Your task to perform on an android device: Open Yahoo.com Image 0: 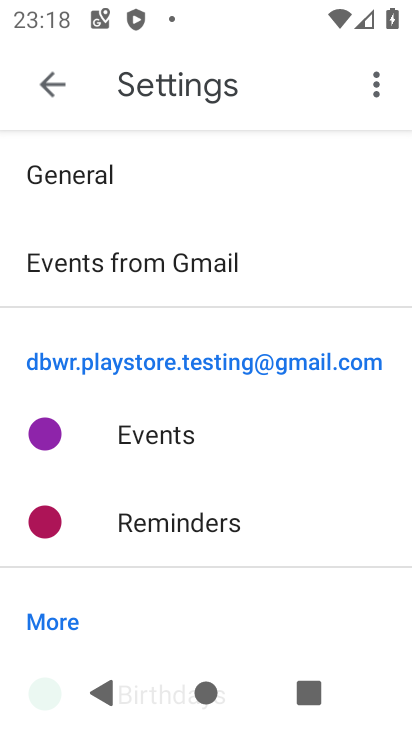
Step 0: press home button
Your task to perform on an android device: Open Yahoo.com Image 1: 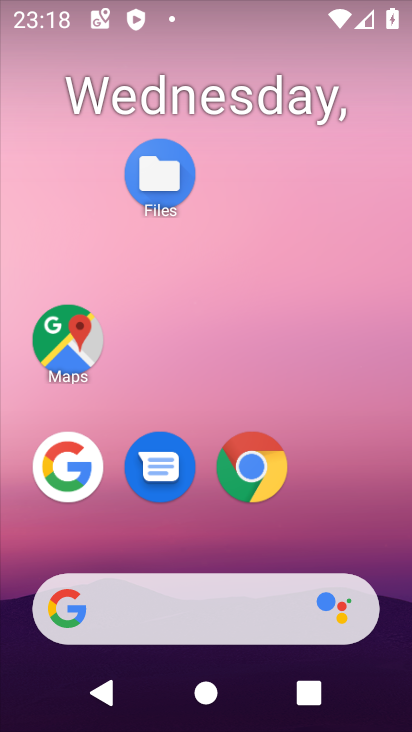
Step 1: click (258, 492)
Your task to perform on an android device: Open Yahoo.com Image 2: 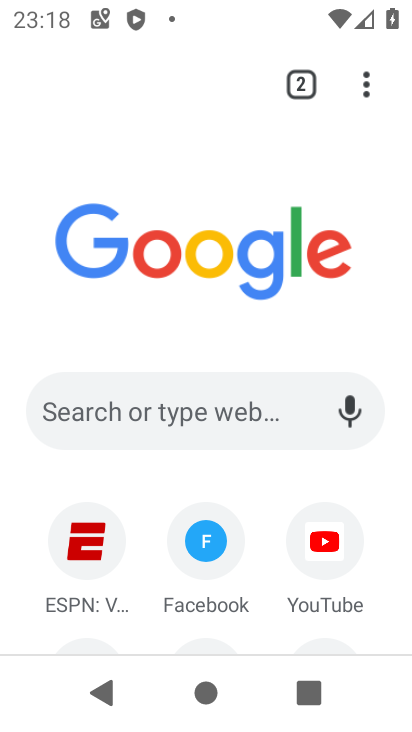
Step 2: drag from (140, 613) to (127, 462)
Your task to perform on an android device: Open Yahoo.com Image 3: 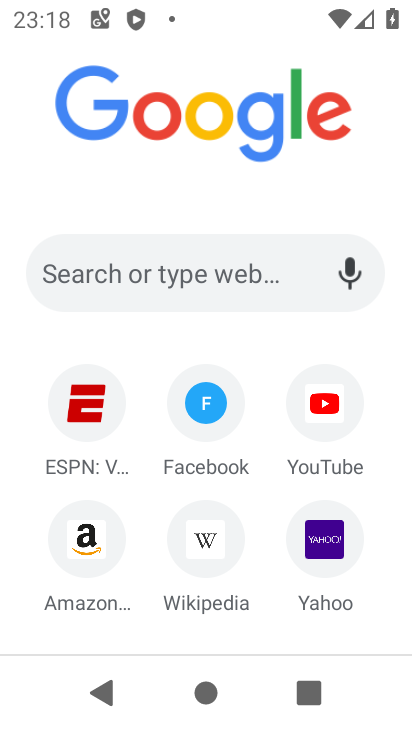
Step 3: click (331, 561)
Your task to perform on an android device: Open Yahoo.com Image 4: 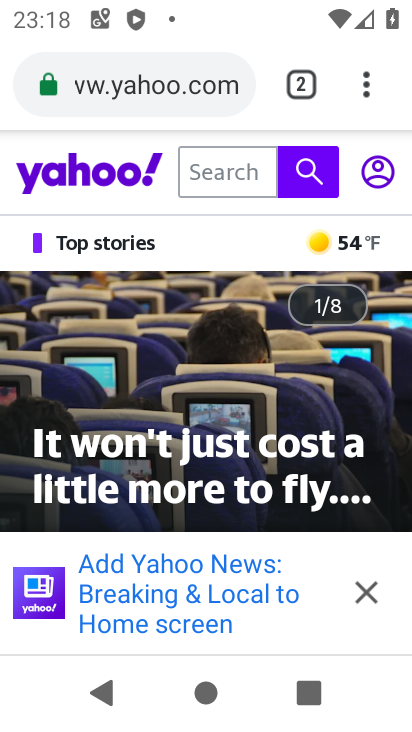
Step 4: task complete